Your task to perform on an android device: Open Youtube and go to the subscriptions tab Image 0: 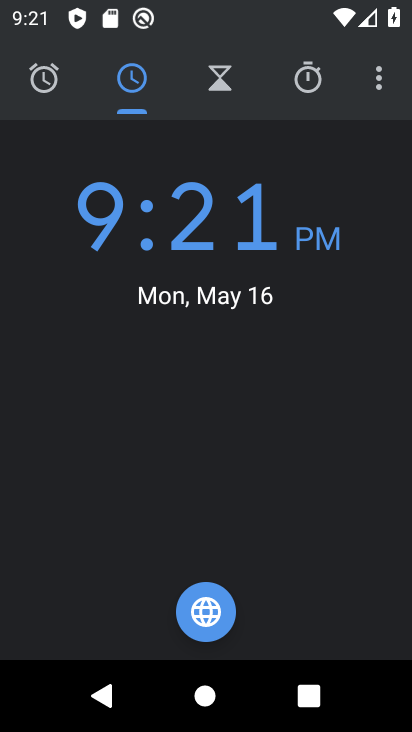
Step 0: press home button
Your task to perform on an android device: Open Youtube and go to the subscriptions tab Image 1: 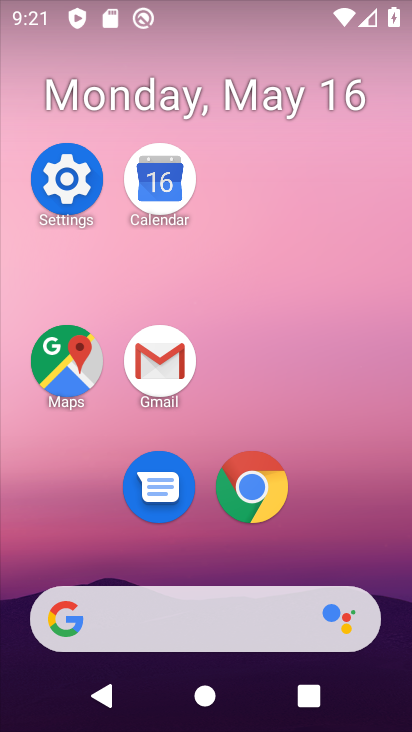
Step 1: drag from (270, 576) to (268, 91)
Your task to perform on an android device: Open Youtube and go to the subscriptions tab Image 2: 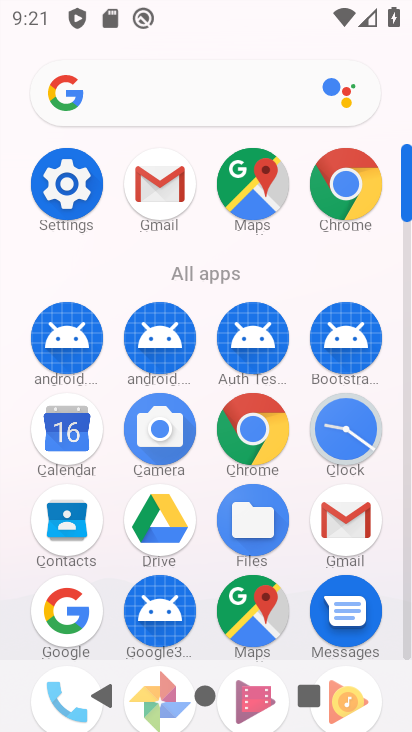
Step 2: drag from (208, 494) to (241, 39)
Your task to perform on an android device: Open Youtube and go to the subscriptions tab Image 3: 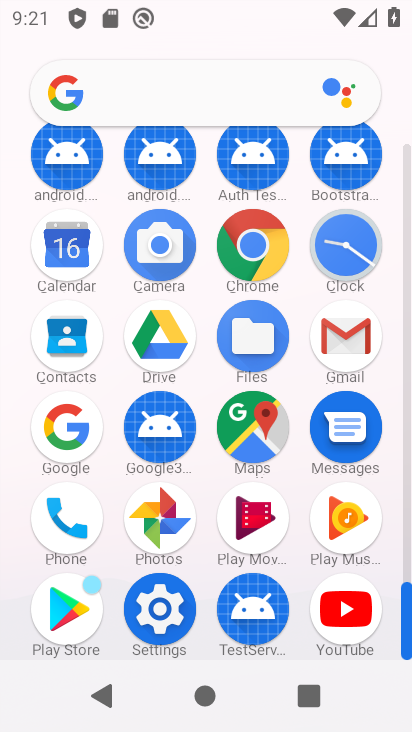
Step 3: click (353, 604)
Your task to perform on an android device: Open Youtube and go to the subscriptions tab Image 4: 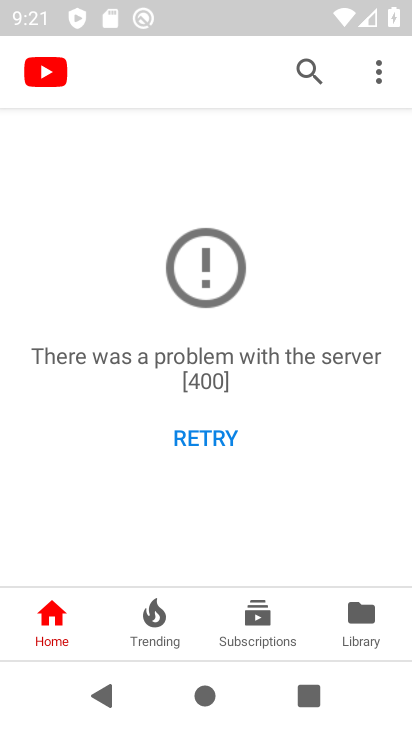
Step 4: click (277, 641)
Your task to perform on an android device: Open Youtube and go to the subscriptions tab Image 5: 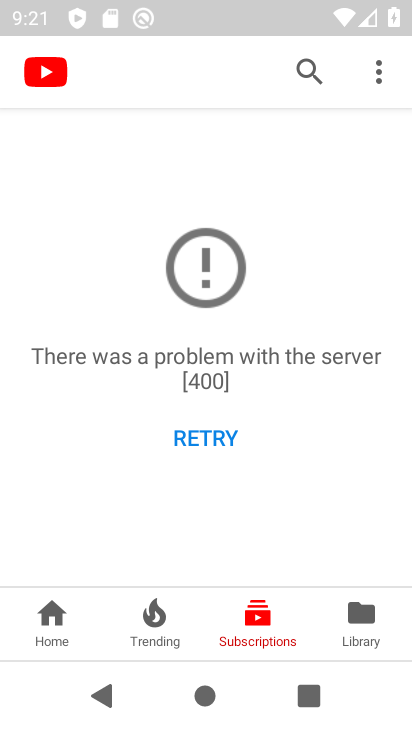
Step 5: task complete